Your task to perform on an android device: Open CNN.com Image 0: 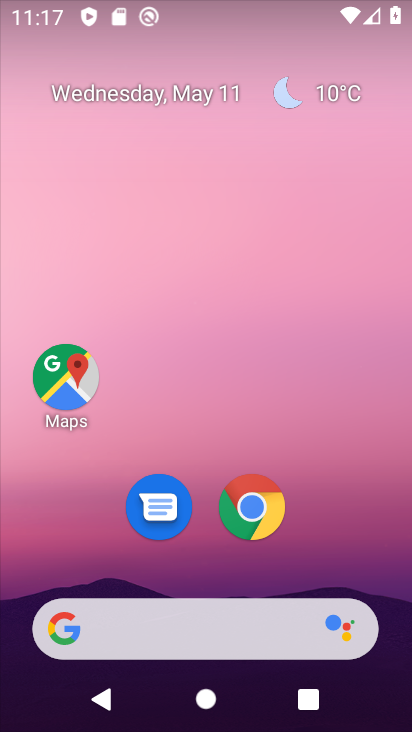
Step 0: click (232, 495)
Your task to perform on an android device: Open CNN.com Image 1: 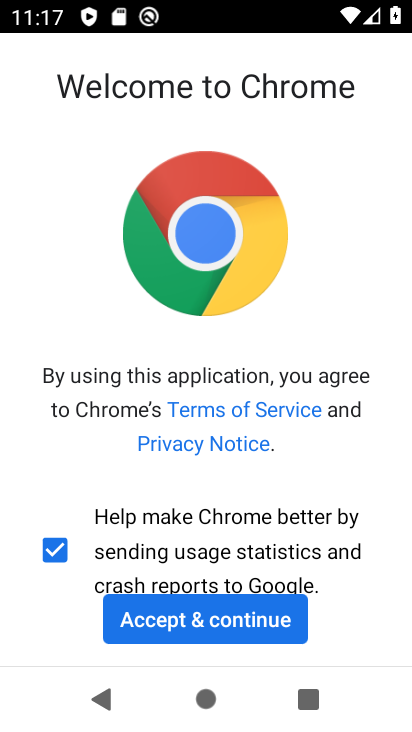
Step 1: click (220, 649)
Your task to perform on an android device: Open CNN.com Image 2: 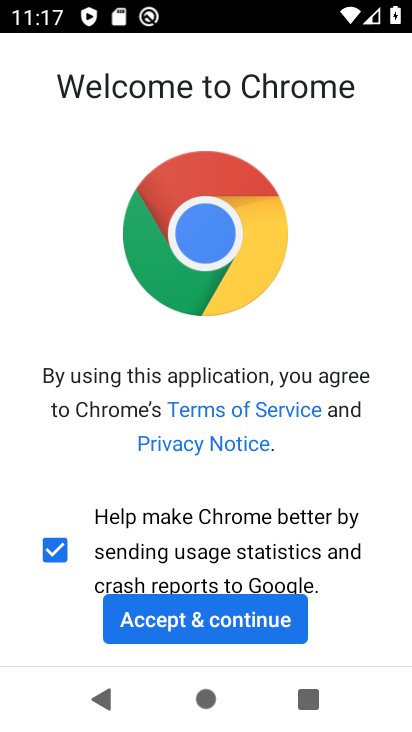
Step 2: click (220, 625)
Your task to perform on an android device: Open CNN.com Image 3: 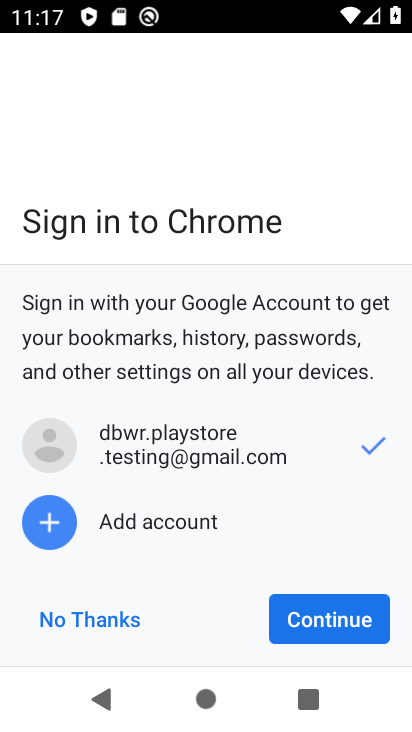
Step 3: click (353, 622)
Your task to perform on an android device: Open CNN.com Image 4: 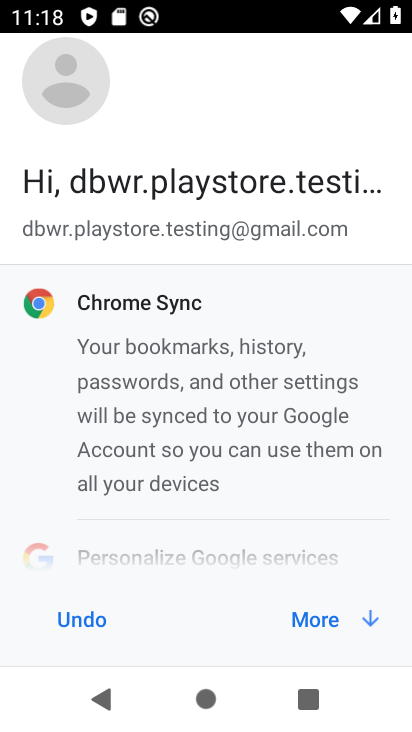
Step 4: click (353, 622)
Your task to perform on an android device: Open CNN.com Image 5: 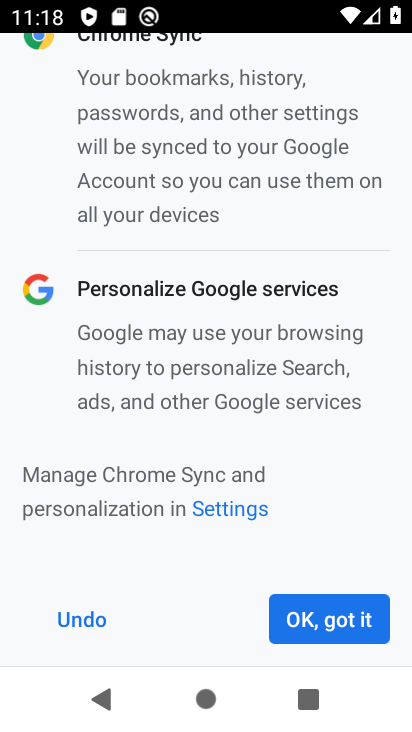
Step 5: click (353, 622)
Your task to perform on an android device: Open CNN.com Image 6: 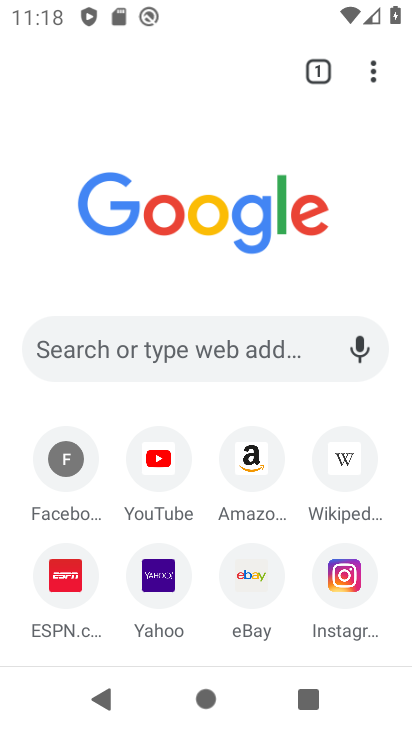
Step 6: click (153, 371)
Your task to perform on an android device: Open CNN.com Image 7: 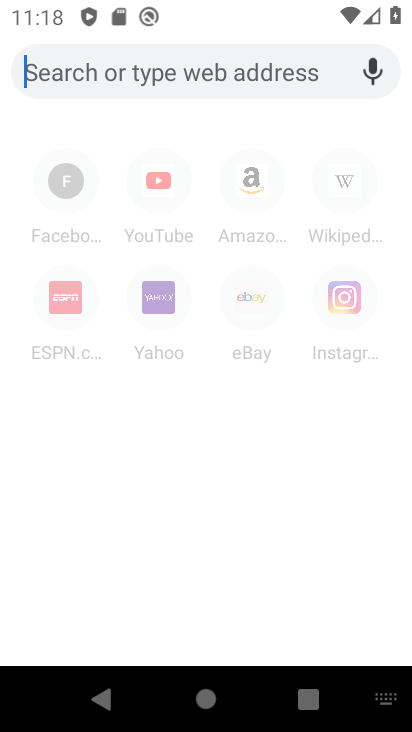
Step 7: type "CNN.com"
Your task to perform on an android device: Open CNN.com Image 8: 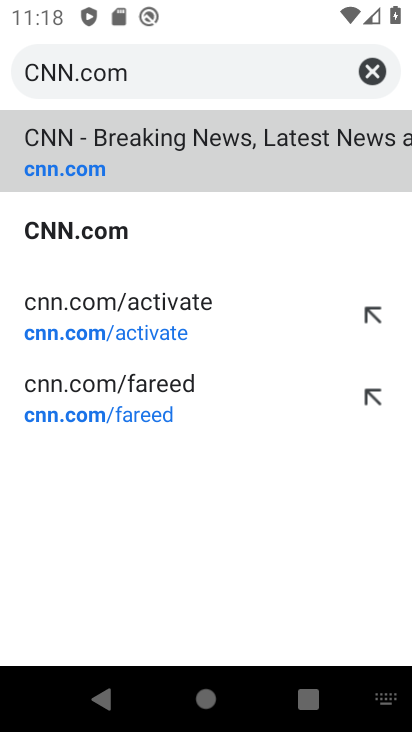
Step 8: click (200, 212)
Your task to perform on an android device: Open CNN.com Image 9: 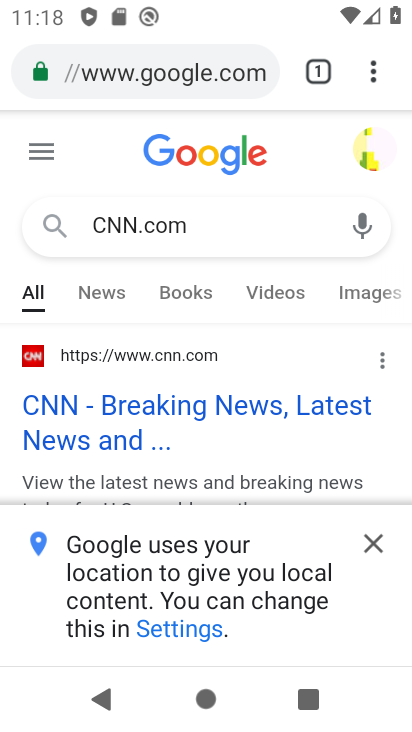
Step 9: click (84, 427)
Your task to perform on an android device: Open CNN.com Image 10: 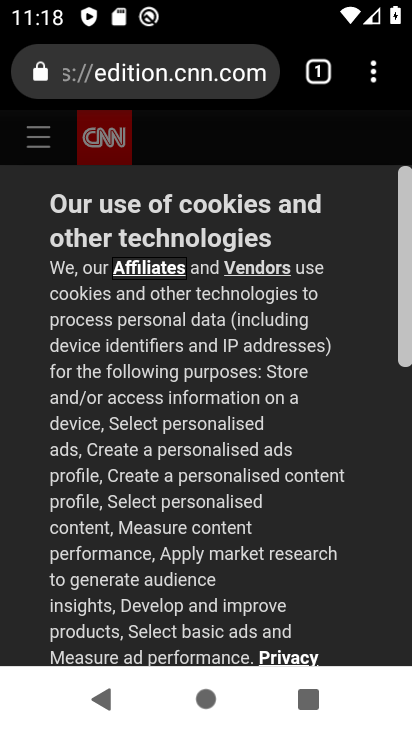
Step 10: drag from (261, 486) to (318, 230)
Your task to perform on an android device: Open CNN.com Image 11: 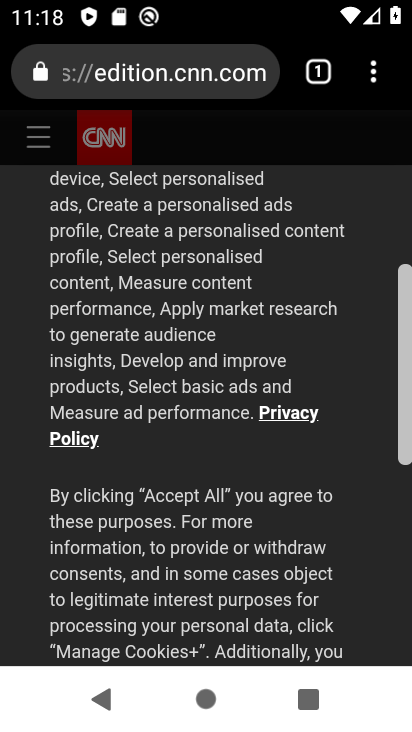
Step 11: drag from (248, 473) to (305, 208)
Your task to perform on an android device: Open CNN.com Image 12: 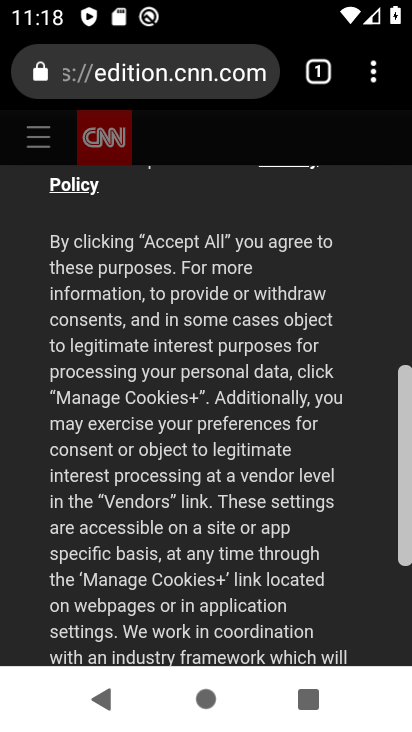
Step 12: drag from (224, 483) to (291, 223)
Your task to perform on an android device: Open CNN.com Image 13: 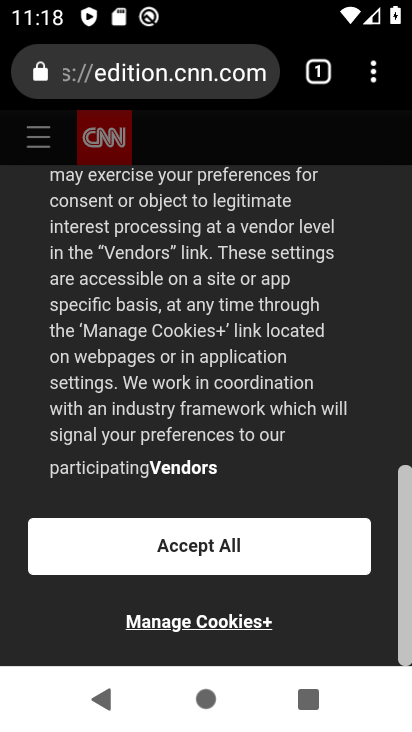
Step 13: click (227, 541)
Your task to perform on an android device: Open CNN.com Image 14: 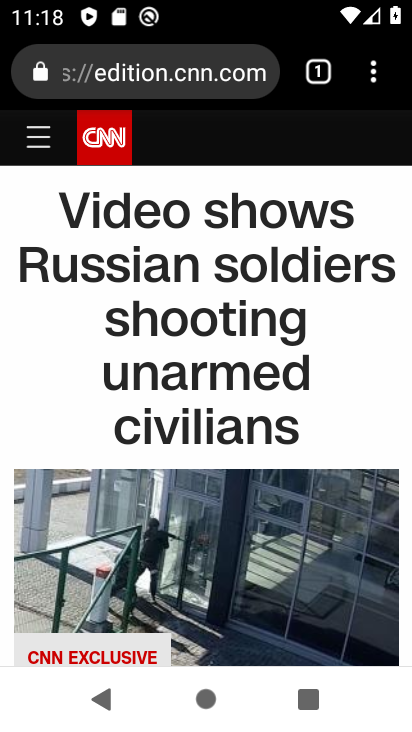
Step 14: task complete